Your task to perform on an android device: Go to Google Image 0: 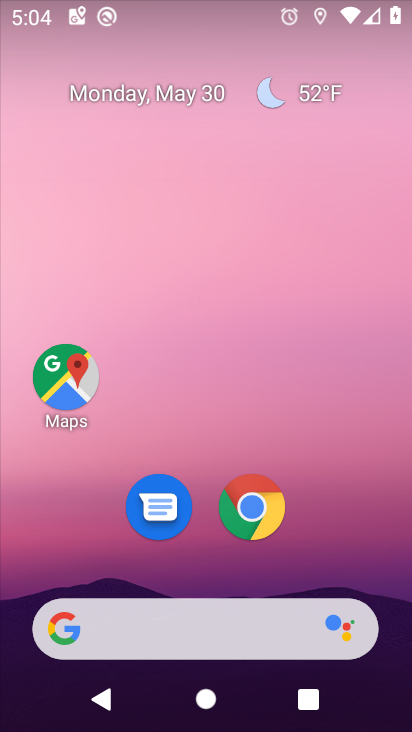
Step 0: press home button
Your task to perform on an android device: Go to Google Image 1: 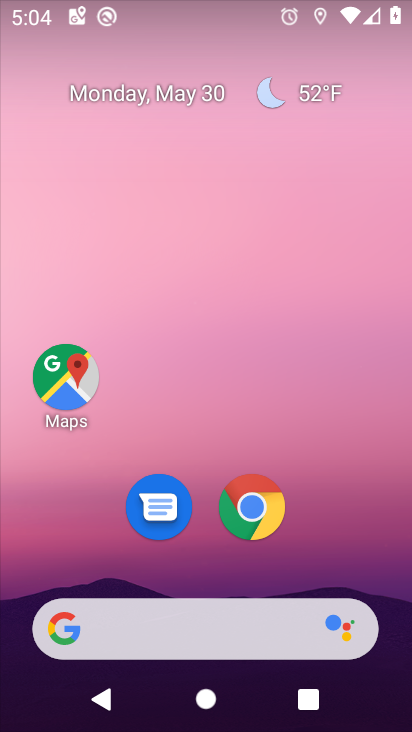
Step 1: drag from (301, 505) to (297, 6)
Your task to perform on an android device: Go to Google Image 2: 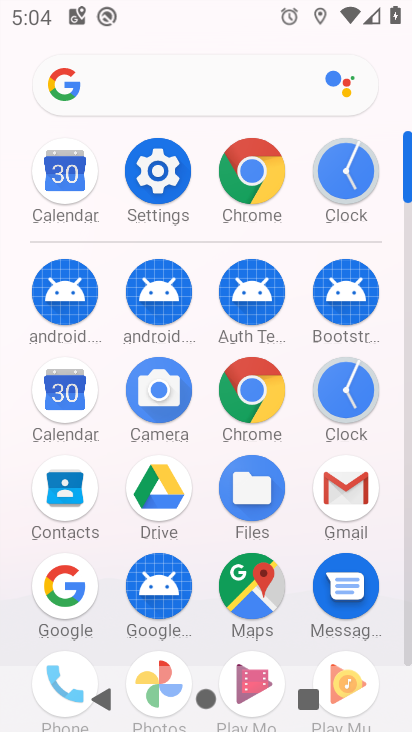
Step 2: click (57, 635)
Your task to perform on an android device: Go to Google Image 3: 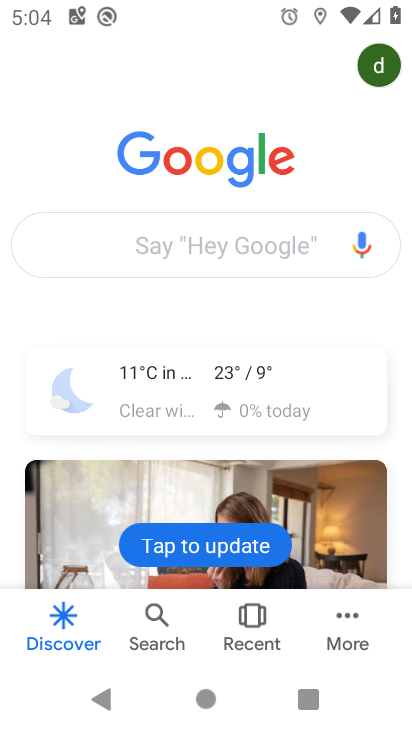
Step 3: task complete